Your task to perform on an android device: Open settings on Google Maps Image 0: 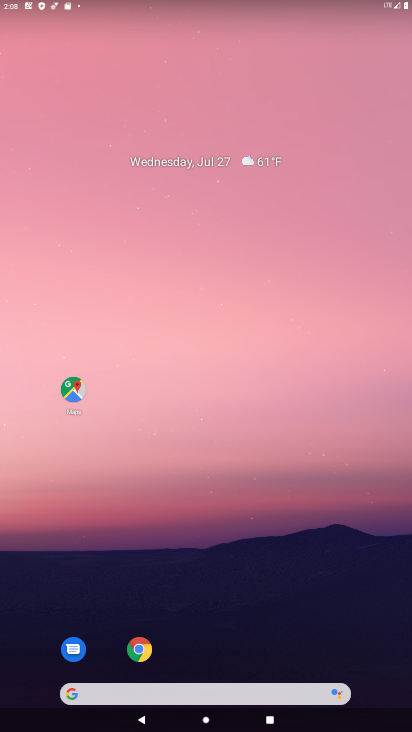
Step 0: click (75, 386)
Your task to perform on an android device: Open settings on Google Maps Image 1: 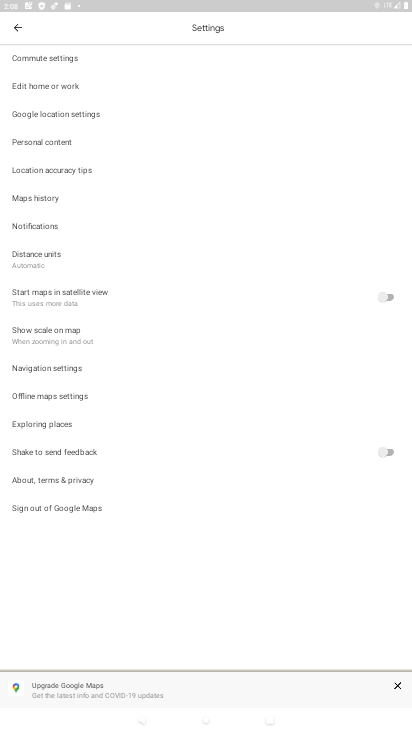
Step 1: task complete